Your task to perform on an android device: Add "usb-c to usb-b" to the cart on newegg, then select checkout. Image 0: 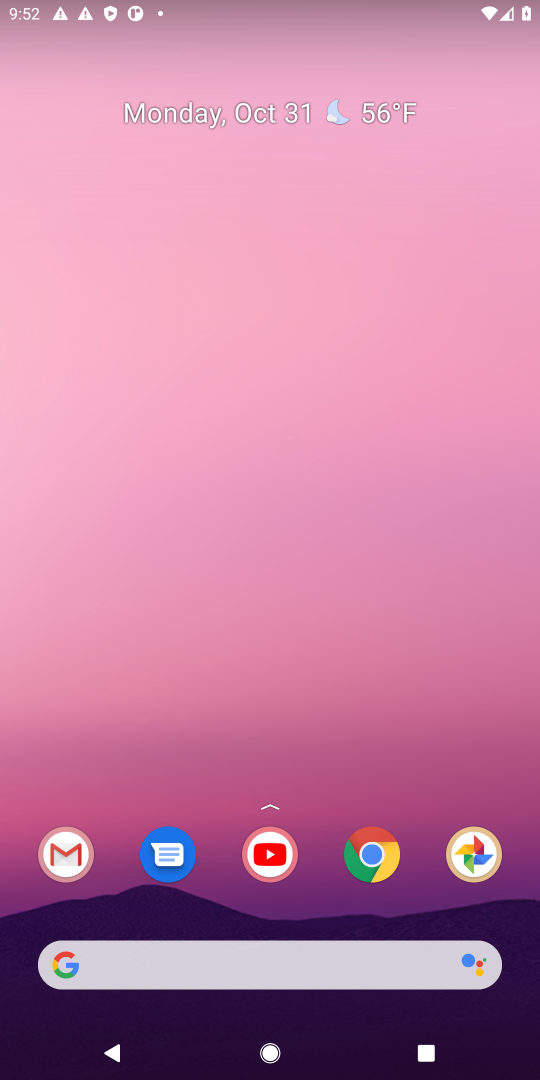
Step 0: click (286, 959)
Your task to perform on an android device: Add "usb-c to usb-b" to the cart on newegg, then select checkout. Image 1: 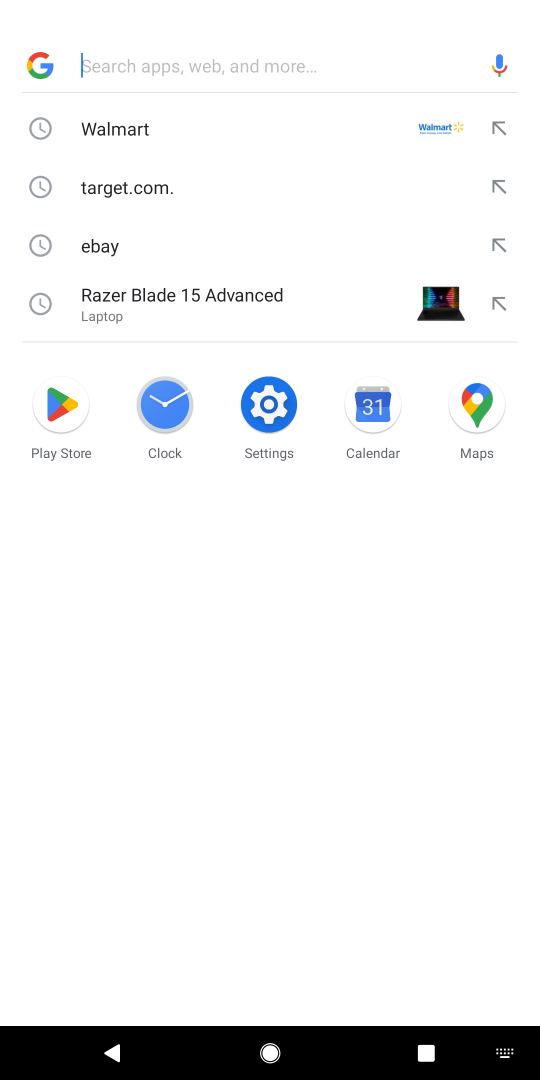
Step 1: type "usb-c to usb-c"
Your task to perform on an android device: Add "usb-c to usb-b" to the cart on newegg, then select checkout. Image 2: 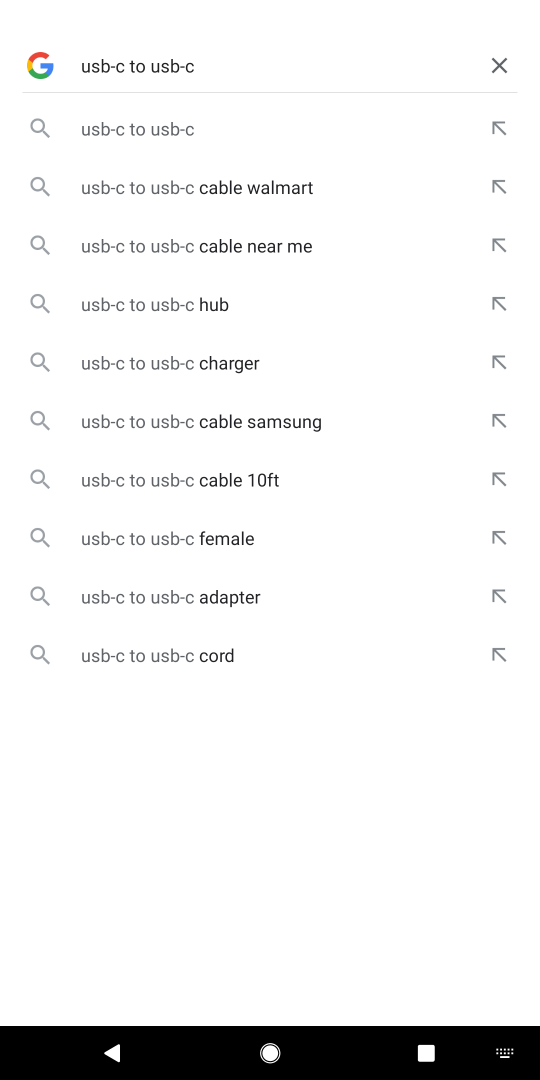
Step 2: click (172, 126)
Your task to perform on an android device: Add "usb-c to usb-b" to the cart on newegg, then select checkout. Image 3: 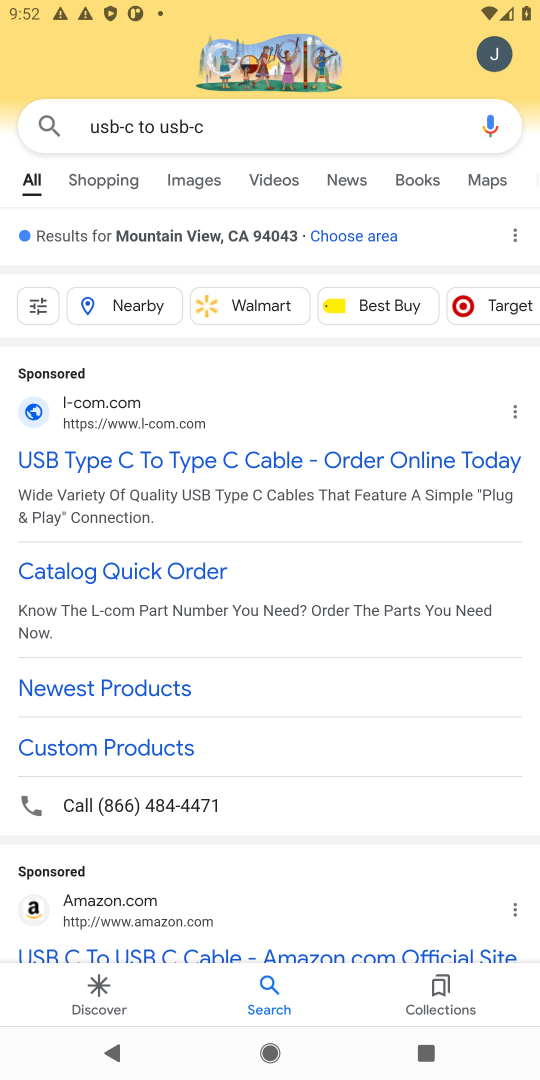
Step 3: click (114, 473)
Your task to perform on an android device: Add "usb-c to usb-b" to the cart on newegg, then select checkout. Image 4: 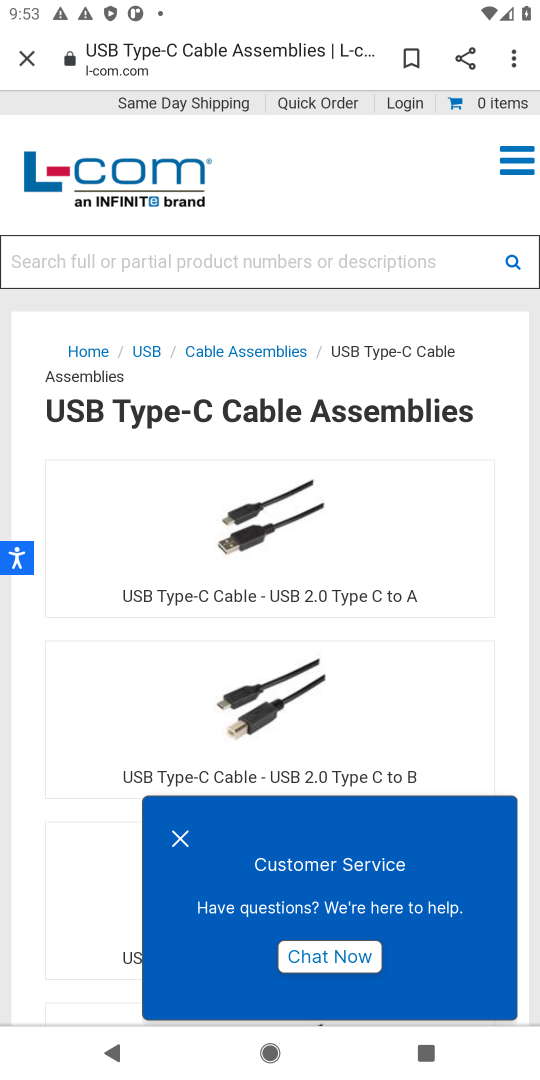
Step 4: click (174, 830)
Your task to perform on an android device: Add "usb-c to usb-b" to the cart on newegg, then select checkout. Image 5: 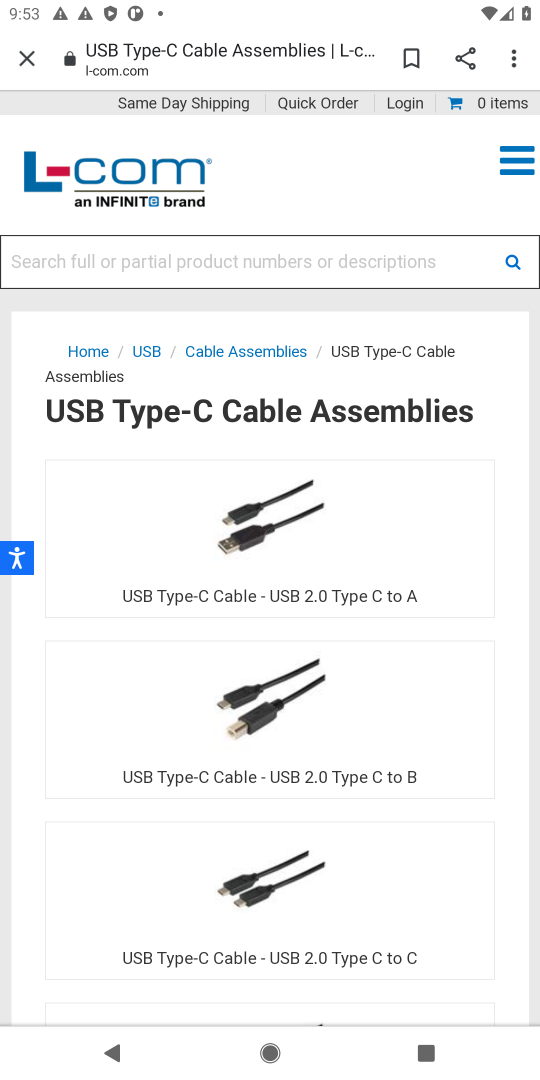
Step 5: click (255, 571)
Your task to perform on an android device: Add "usb-c to usb-b" to the cart on newegg, then select checkout. Image 6: 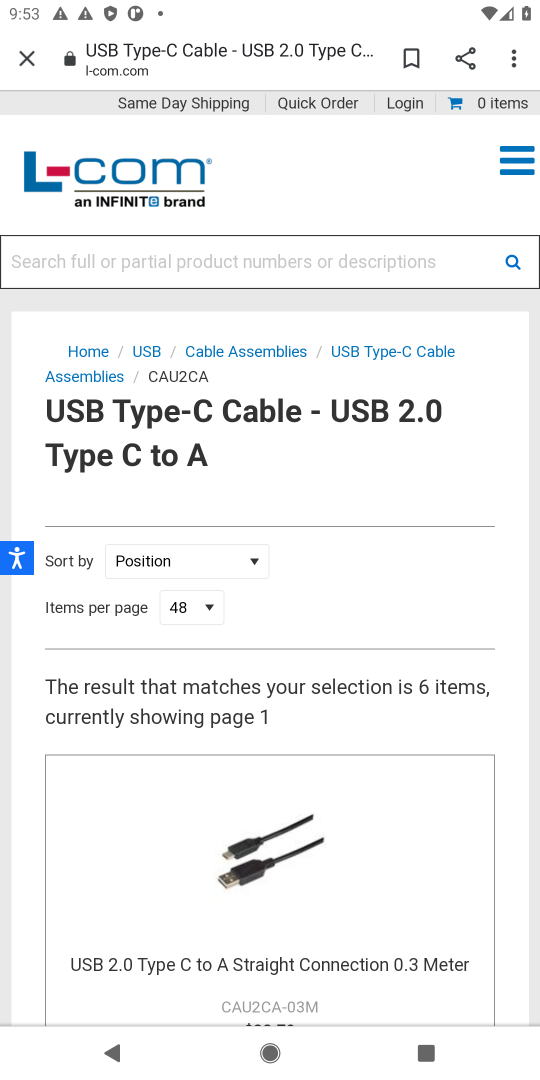
Step 6: drag from (311, 793) to (294, 460)
Your task to perform on an android device: Add "usb-c to usb-b" to the cart on newegg, then select checkout. Image 7: 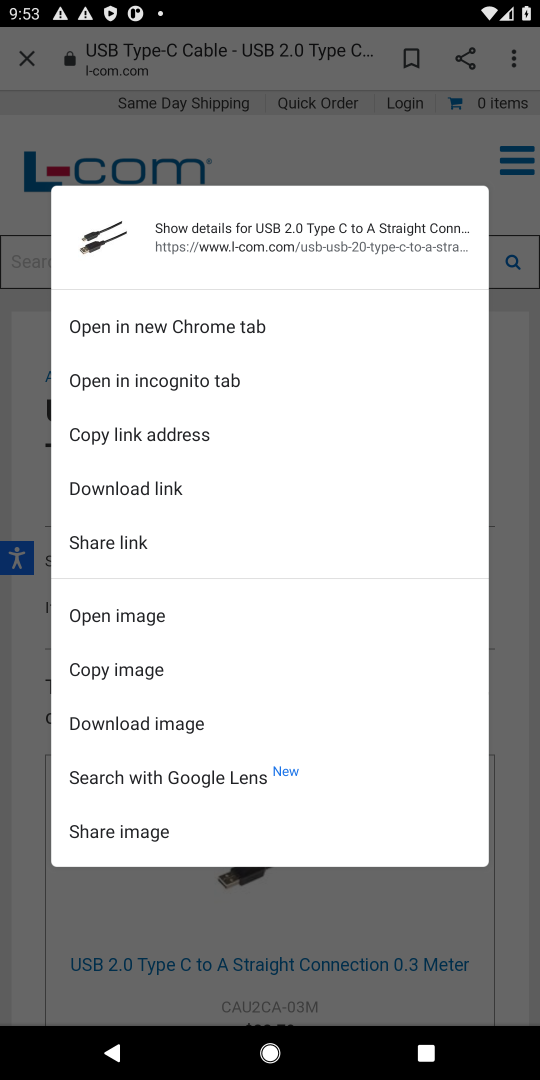
Step 7: click (233, 947)
Your task to perform on an android device: Add "usb-c to usb-b" to the cart on newegg, then select checkout. Image 8: 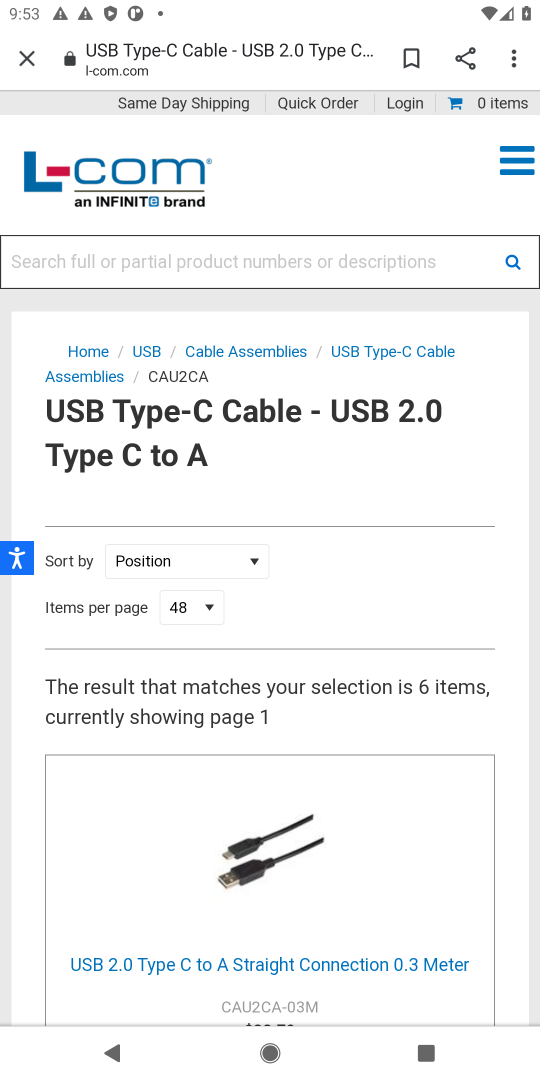
Step 8: task complete